Your task to perform on an android device: Is it going to rain tomorrow? Image 0: 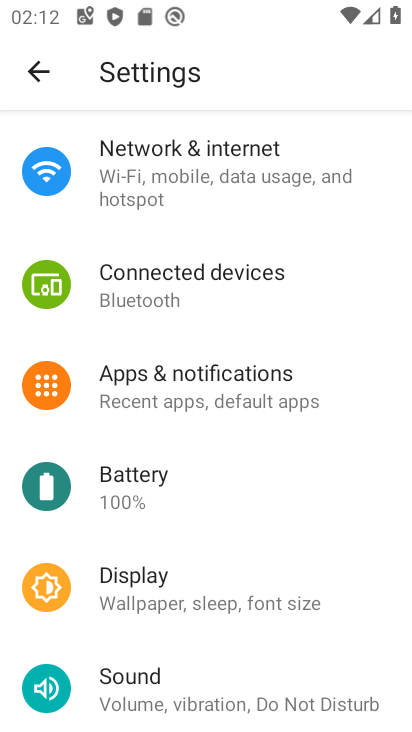
Step 0: press home button
Your task to perform on an android device: Is it going to rain tomorrow? Image 1: 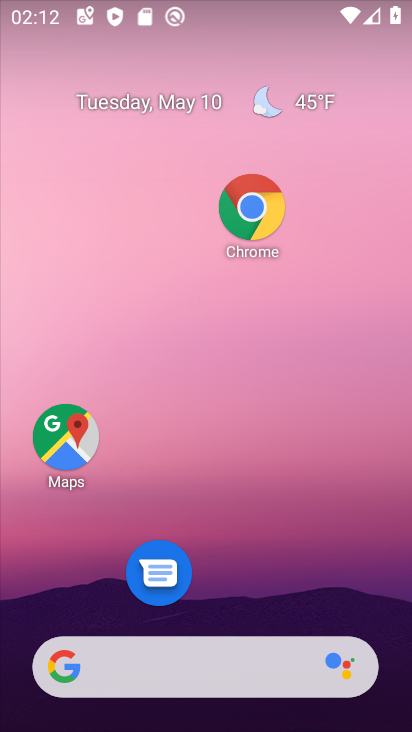
Step 1: drag from (260, 576) to (305, 37)
Your task to perform on an android device: Is it going to rain tomorrow? Image 2: 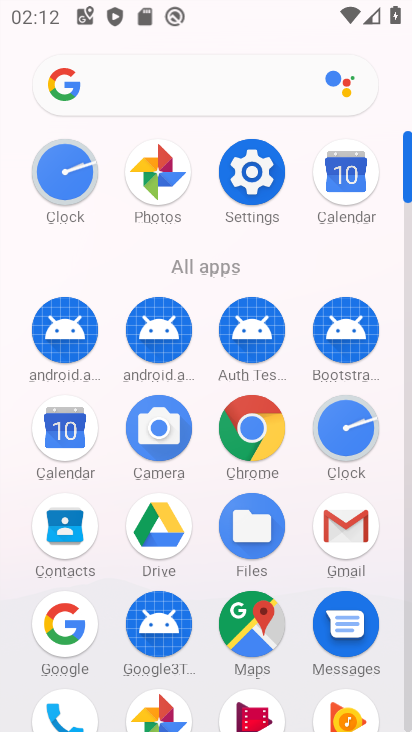
Step 2: press home button
Your task to perform on an android device: Is it going to rain tomorrow? Image 3: 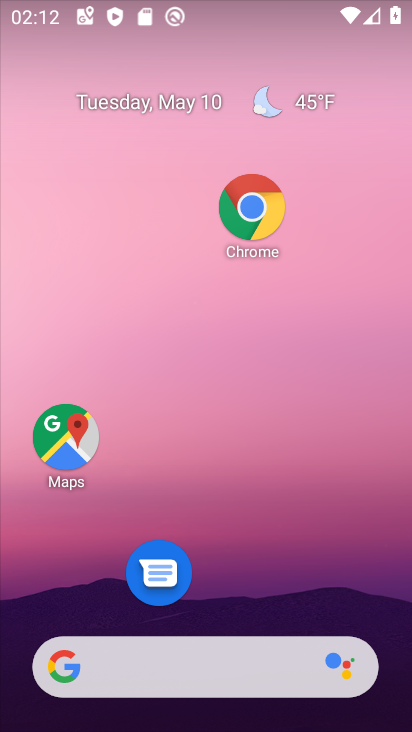
Step 3: click (306, 111)
Your task to perform on an android device: Is it going to rain tomorrow? Image 4: 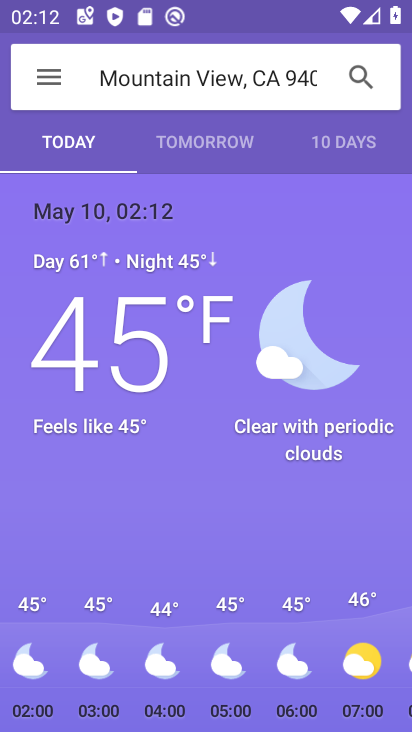
Step 4: click (207, 146)
Your task to perform on an android device: Is it going to rain tomorrow? Image 5: 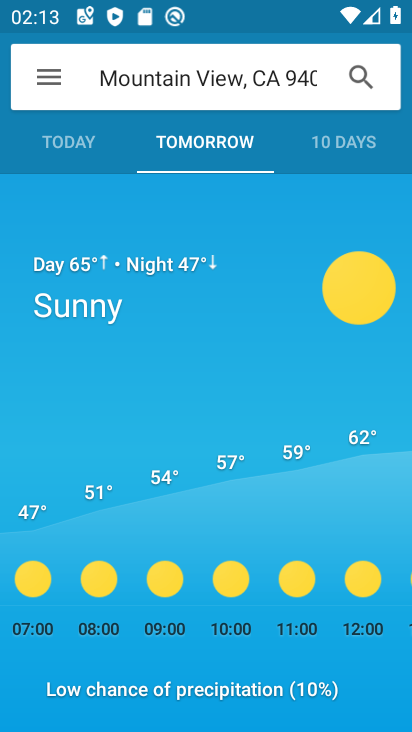
Step 5: task complete